Your task to perform on an android device: turn off notifications settings in the gmail app Image 0: 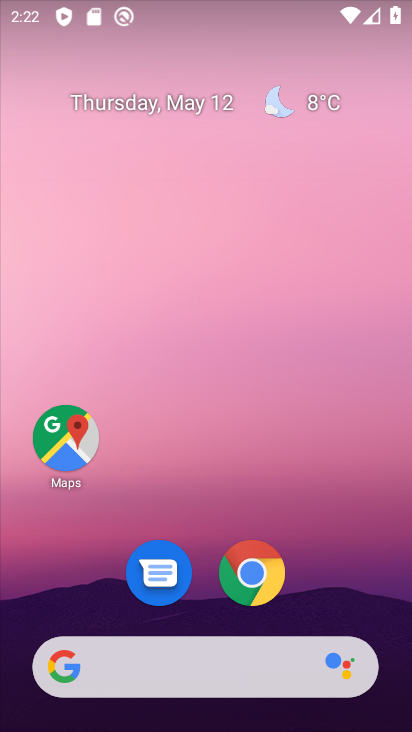
Step 0: drag from (330, 590) to (296, 87)
Your task to perform on an android device: turn off notifications settings in the gmail app Image 1: 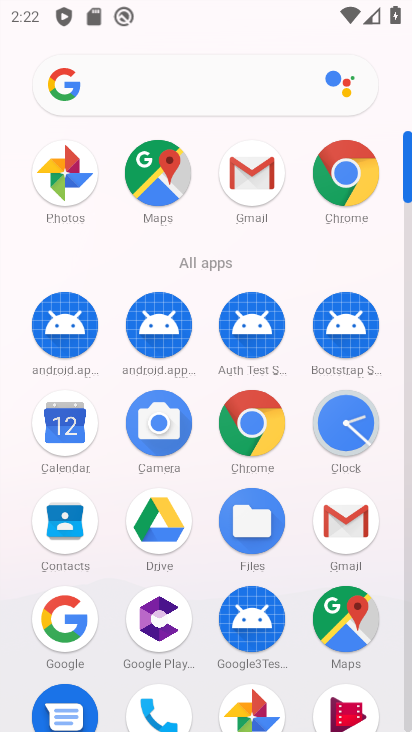
Step 1: click (356, 521)
Your task to perform on an android device: turn off notifications settings in the gmail app Image 2: 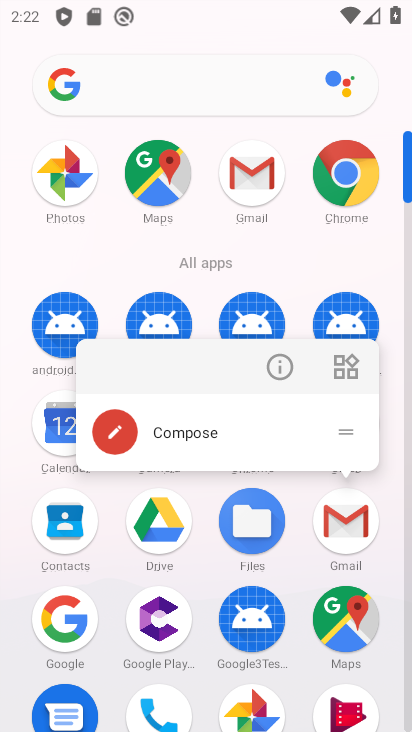
Step 2: click (279, 368)
Your task to perform on an android device: turn off notifications settings in the gmail app Image 3: 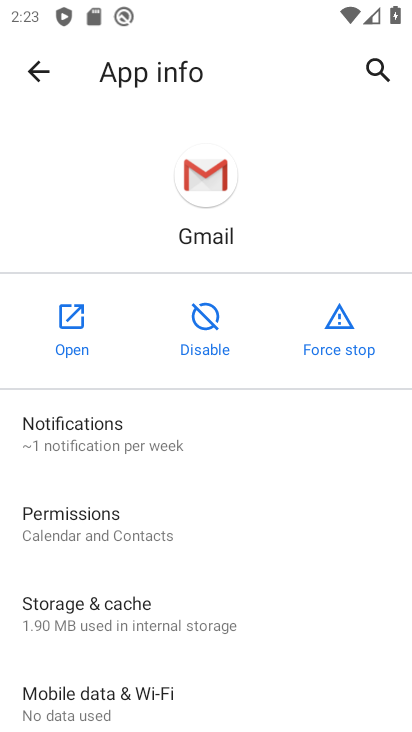
Step 3: click (93, 431)
Your task to perform on an android device: turn off notifications settings in the gmail app Image 4: 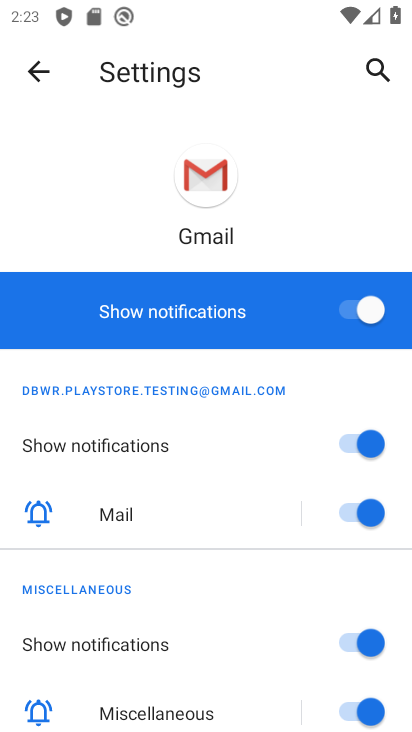
Step 4: click (347, 307)
Your task to perform on an android device: turn off notifications settings in the gmail app Image 5: 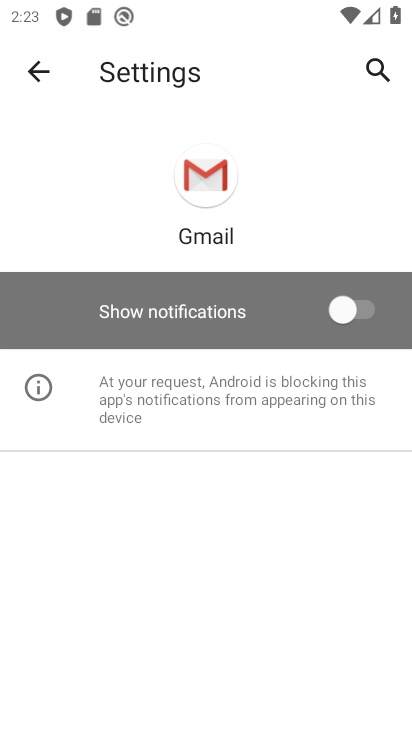
Step 5: task complete